Your task to perform on an android device: turn notification dots off Image 0: 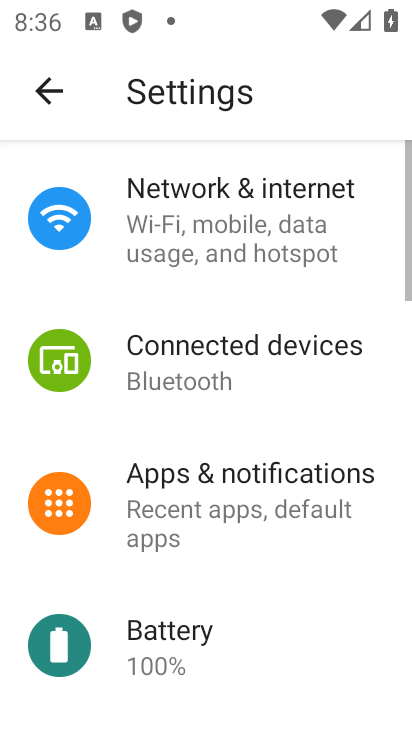
Step 0: click (263, 489)
Your task to perform on an android device: turn notification dots off Image 1: 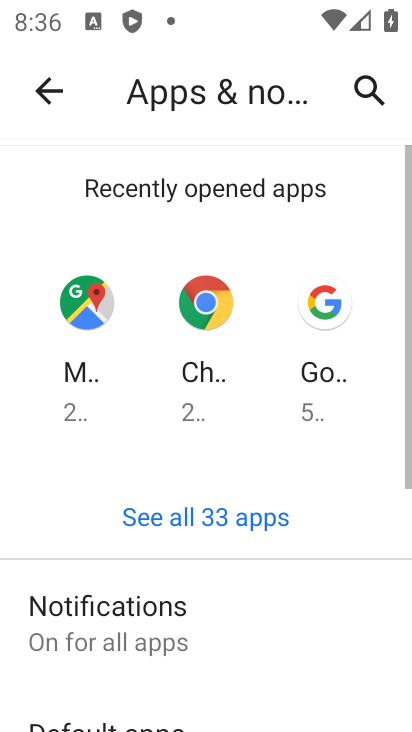
Step 1: drag from (147, 657) to (174, 282)
Your task to perform on an android device: turn notification dots off Image 2: 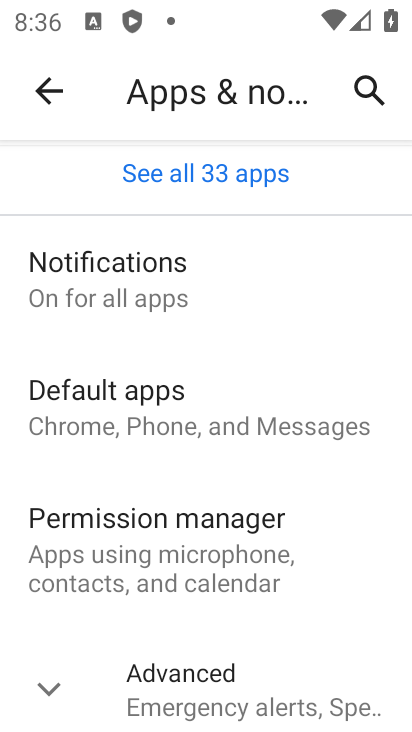
Step 2: click (98, 295)
Your task to perform on an android device: turn notification dots off Image 3: 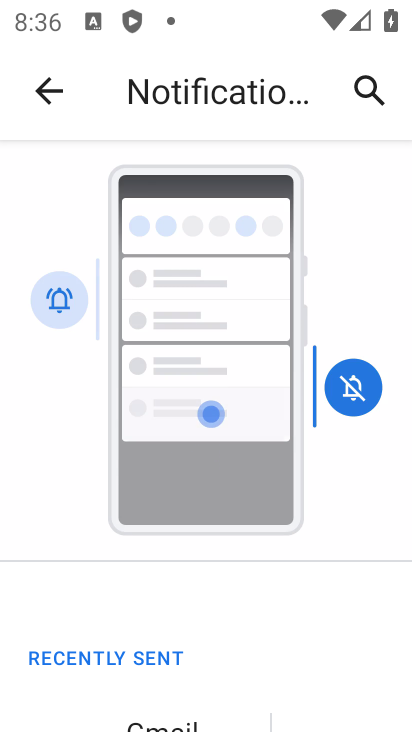
Step 3: drag from (223, 553) to (269, 307)
Your task to perform on an android device: turn notification dots off Image 4: 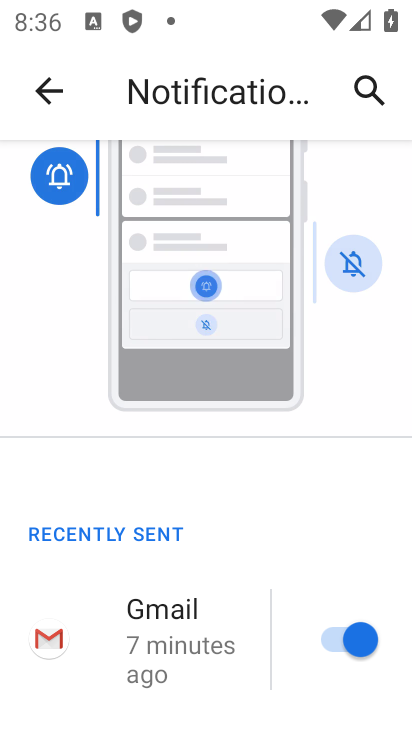
Step 4: drag from (247, 639) to (245, 352)
Your task to perform on an android device: turn notification dots off Image 5: 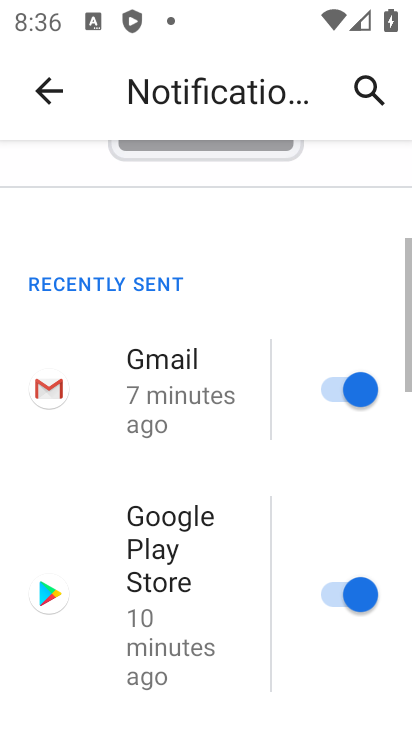
Step 5: drag from (223, 624) to (284, 320)
Your task to perform on an android device: turn notification dots off Image 6: 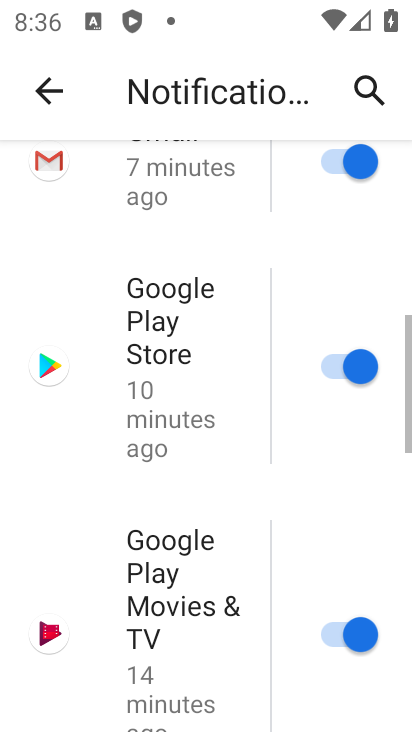
Step 6: drag from (205, 674) to (259, 319)
Your task to perform on an android device: turn notification dots off Image 7: 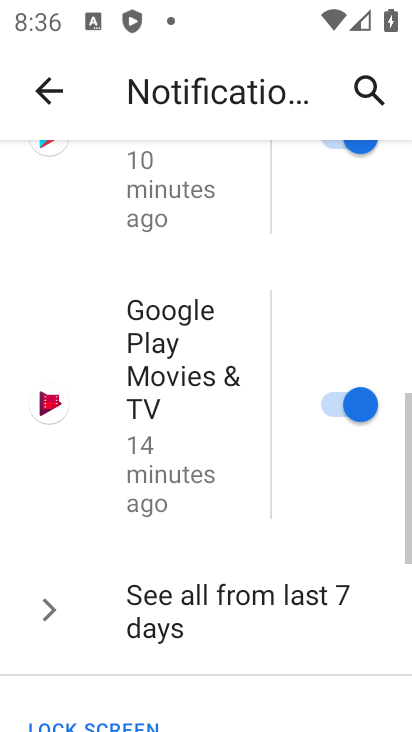
Step 7: drag from (269, 604) to (321, 411)
Your task to perform on an android device: turn notification dots off Image 8: 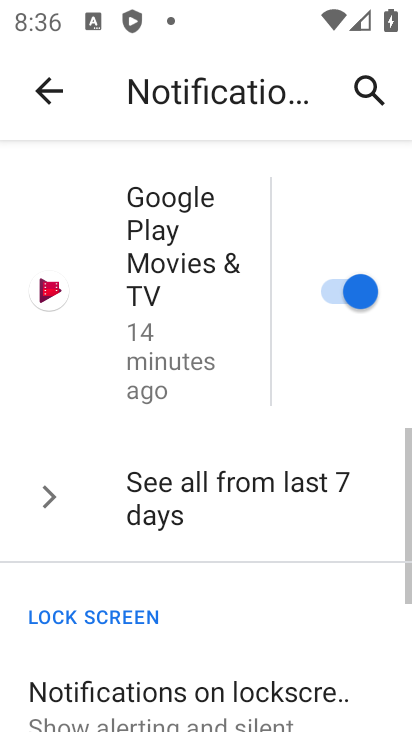
Step 8: drag from (250, 672) to (316, 338)
Your task to perform on an android device: turn notification dots off Image 9: 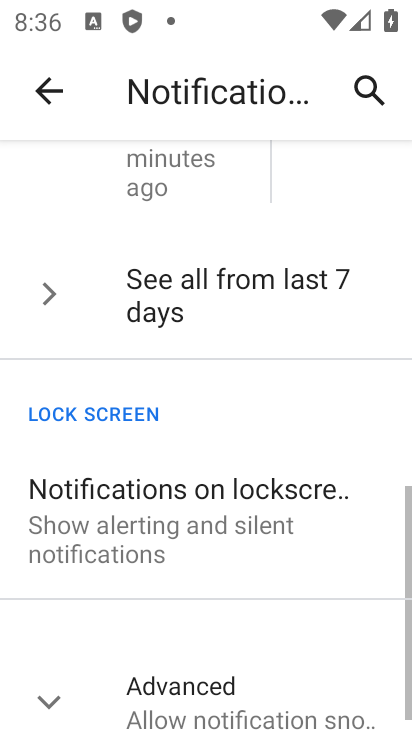
Step 9: drag from (260, 558) to (303, 397)
Your task to perform on an android device: turn notification dots off Image 10: 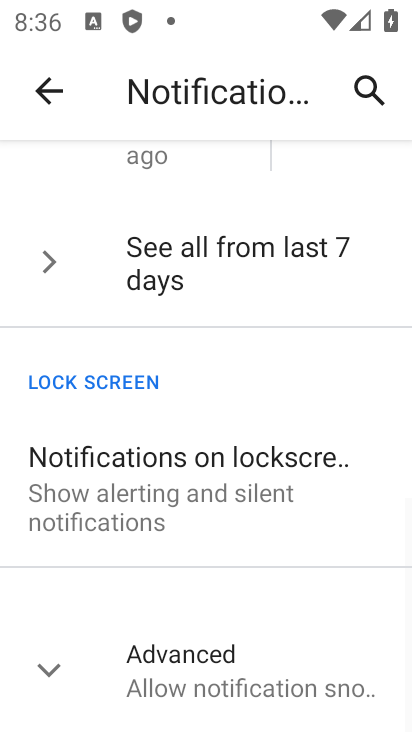
Step 10: click (51, 658)
Your task to perform on an android device: turn notification dots off Image 11: 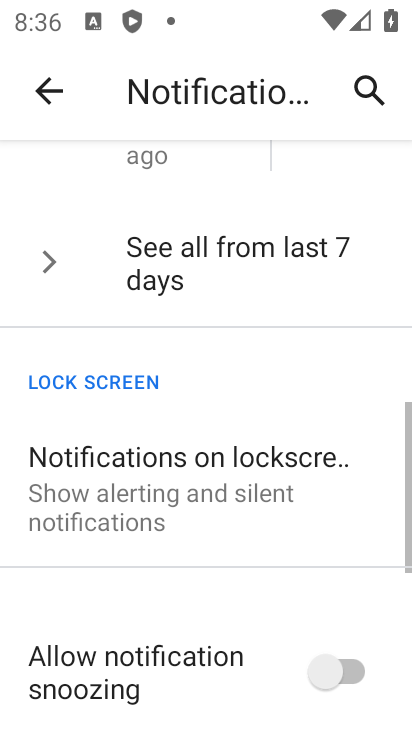
Step 11: drag from (153, 687) to (215, 342)
Your task to perform on an android device: turn notification dots off Image 12: 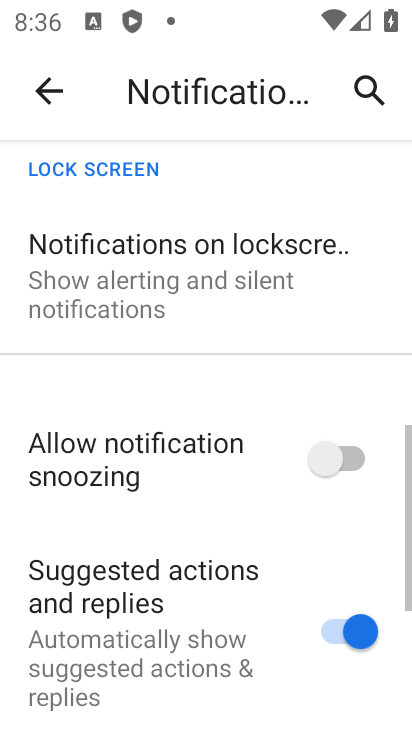
Step 12: drag from (170, 530) to (223, 333)
Your task to perform on an android device: turn notification dots off Image 13: 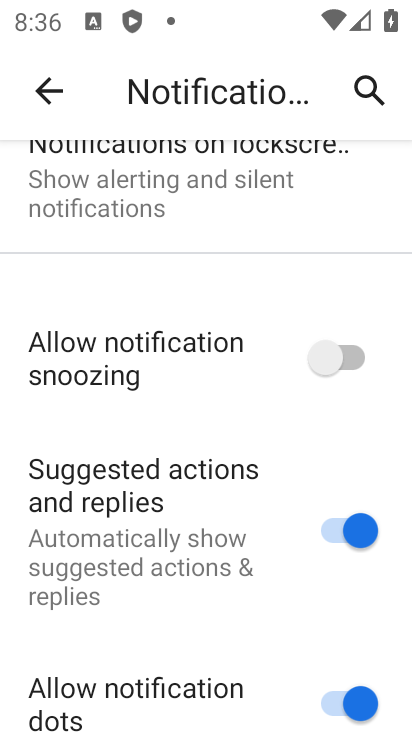
Step 13: drag from (205, 641) to (186, 423)
Your task to perform on an android device: turn notification dots off Image 14: 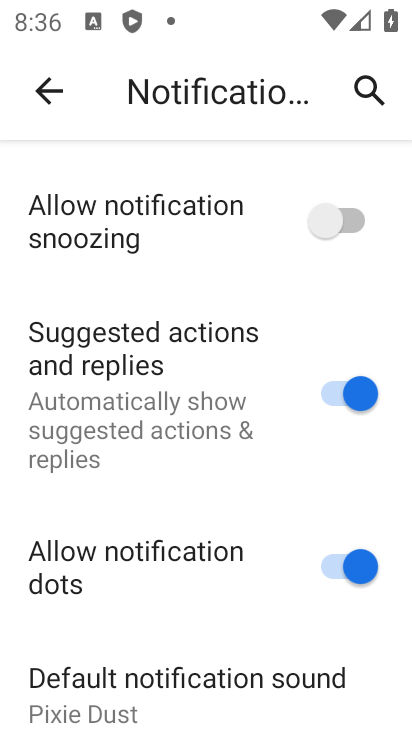
Step 14: click (346, 566)
Your task to perform on an android device: turn notification dots off Image 15: 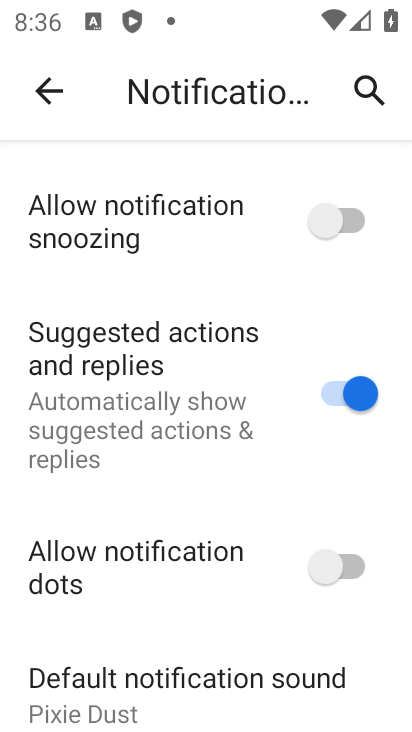
Step 15: task complete